Your task to perform on an android device: remove spam from my inbox in the gmail app Image 0: 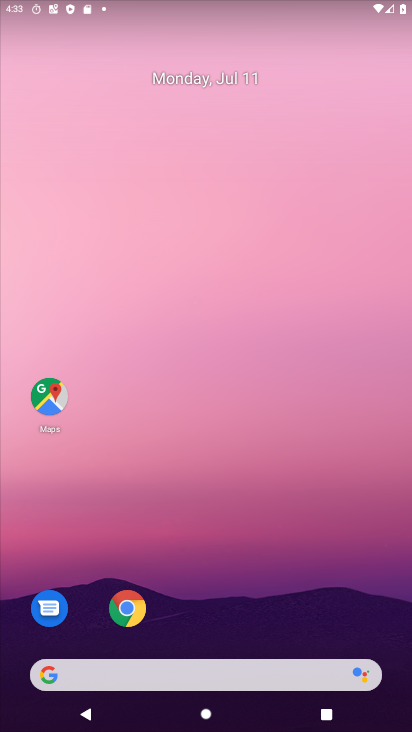
Step 0: drag from (319, 473) to (352, 126)
Your task to perform on an android device: remove spam from my inbox in the gmail app Image 1: 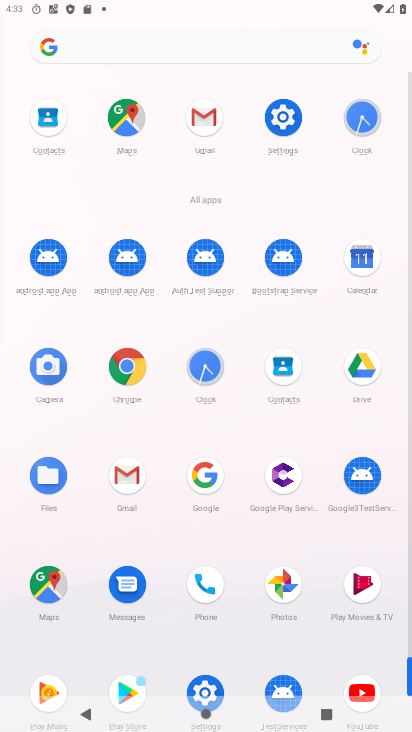
Step 1: click (126, 464)
Your task to perform on an android device: remove spam from my inbox in the gmail app Image 2: 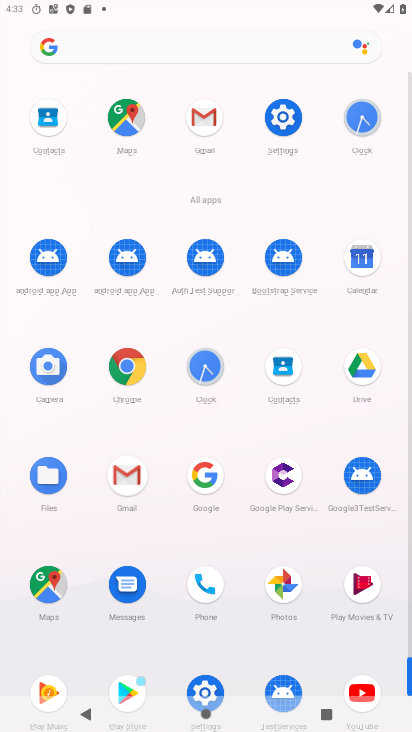
Step 2: click (115, 471)
Your task to perform on an android device: remove spam from my inbox in the gmail app Image 3: 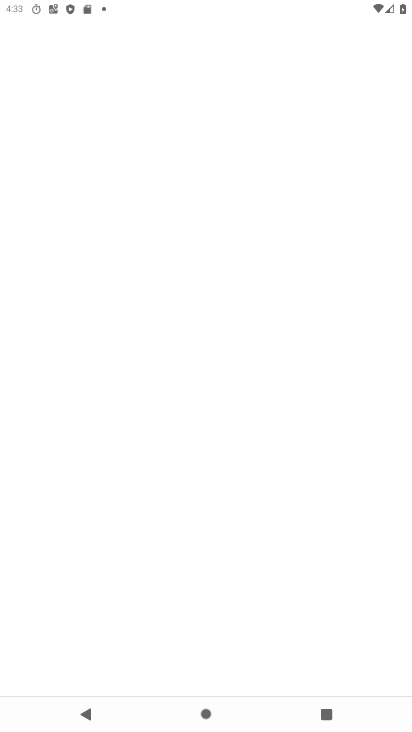
Step 3: click (115, 471)
Your task to perform on an android device: remove spam from my inbox in the gmail app Image 4: 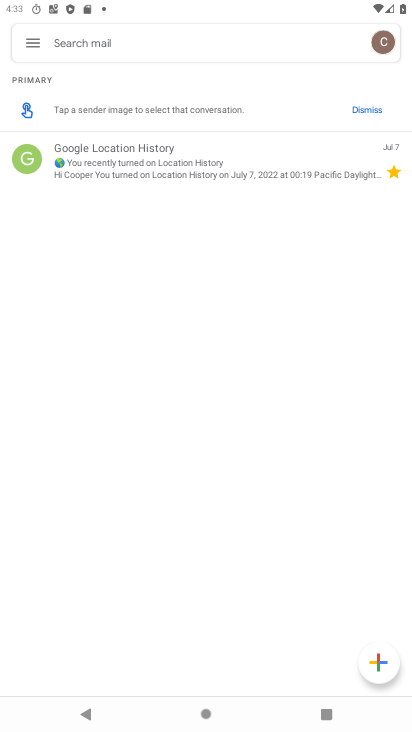
Step 4: click (144, 159)
Your task to perform on an android device: remove spam from my inbox in the gmail app Image 5: 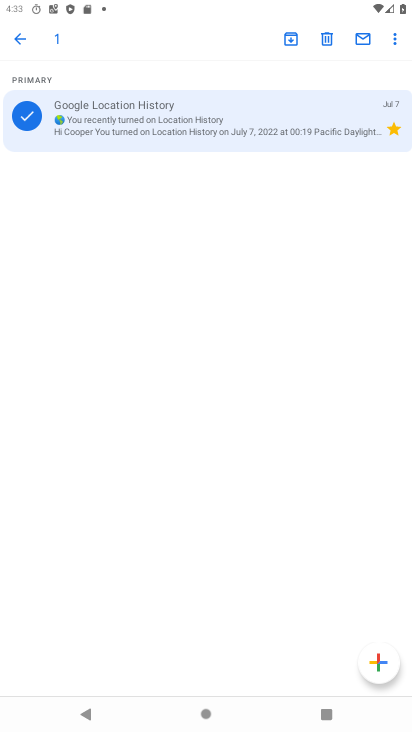
Step 5: click (396, 37)
Your task to perform on an android device: remove spam from my inbox in the gmail app Image 6: 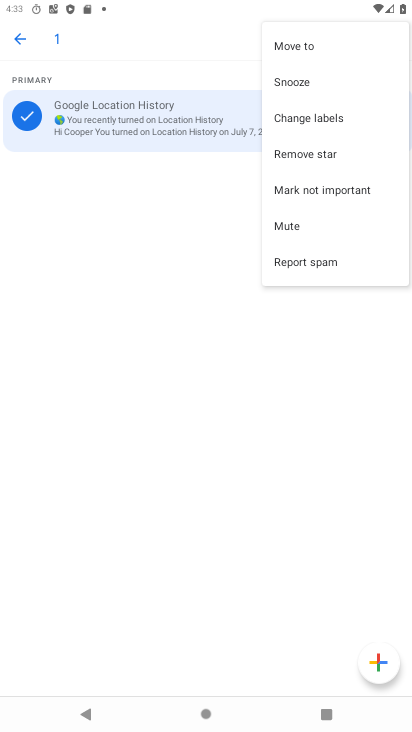
Step 6: click (165, 240)
Your task to perform on an android device: remove spam from my inbox in the gmail app Image 7: 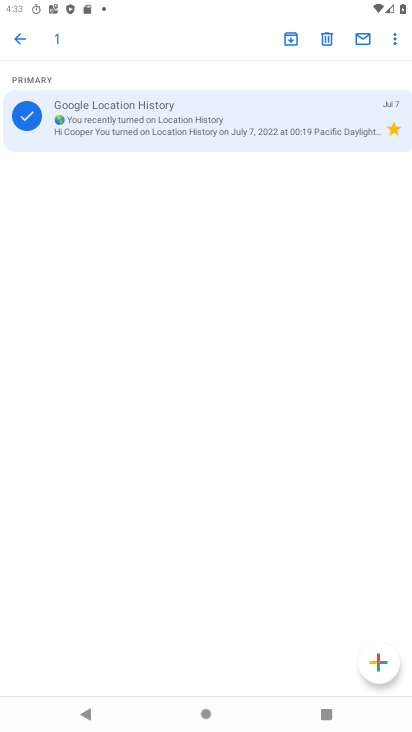
Step 7: click (11, 34)
Your task to perform on an android device: remove spam from my inbox in the gmail app Image 8: 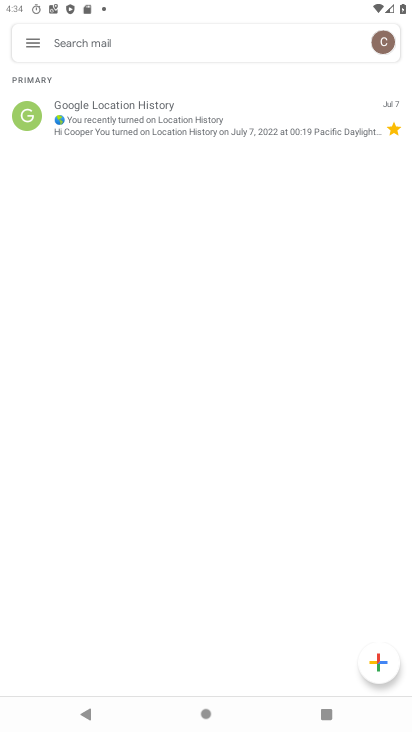
Step 8: click (35, 35)
Your task to perform on an android device: remove spam from my inbox in the gmail app Image 9: 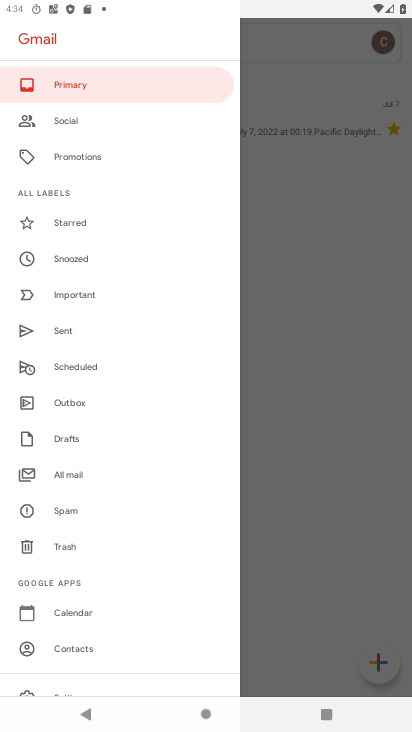
Step 9: click (72, 507)
Your task to perform on an android device: remove spam from my inbox in the gmail app Image 10: 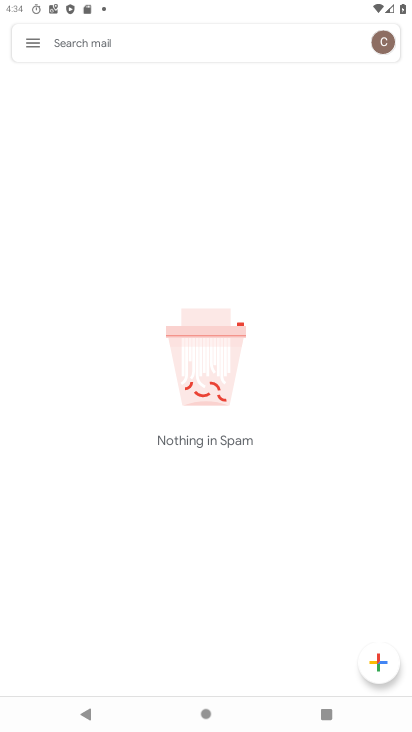
Step 10: task complete